Your task to perform on an android device: make emails show in primary in the gmail app Image 0: 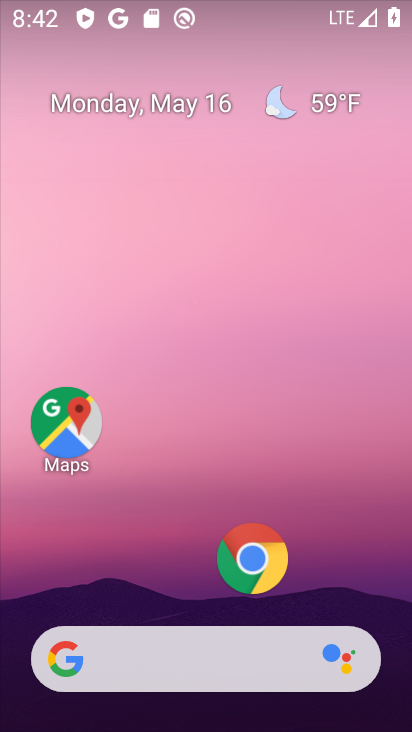
Step 0: drag from (203, 532) to (246, 77)
Your task to perform on an android device: make emails show in primary in the gmail app Image 1: 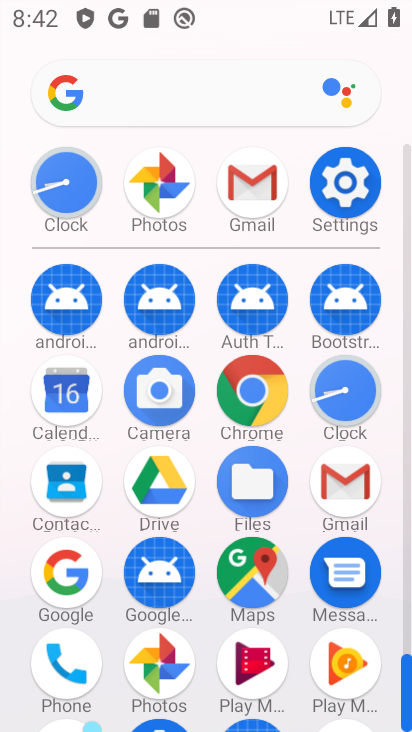
Step 1: click (248, 199)
Your task to perform on an android device: make emails show in primary in the gmail app Image 2: 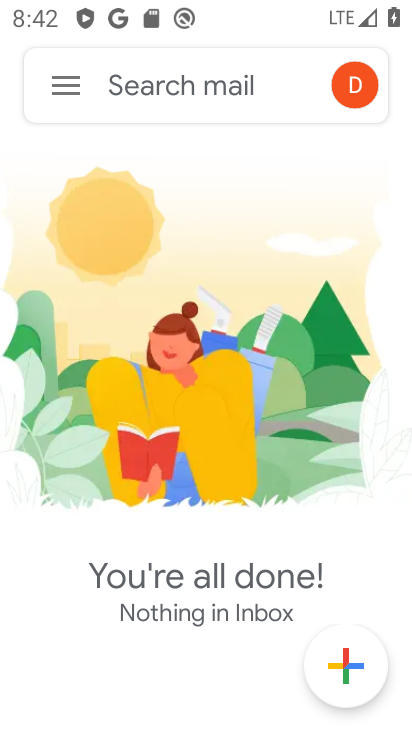
Step 2: click (64, 82)
Your task to perform on an android device: make emails show in primary in the gmail app Image 3: 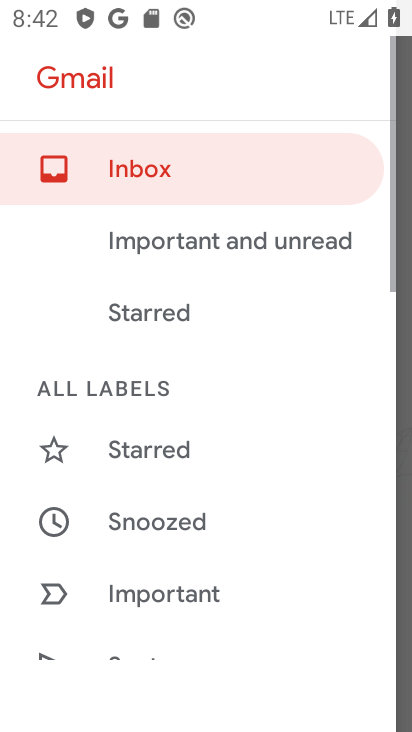
Step 3: drag from (207, 597) to (298, 27)
Your task to perform on an android device: make emails show in primary in the gmail app Image 4: 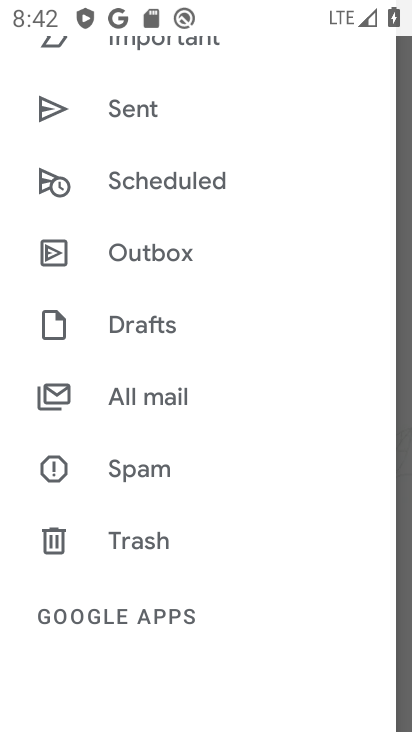
Step 4: drag from (190, 493) to (283, 23)
Your task to perform on an android device: make emails show in primary in the gmail app Image 5: 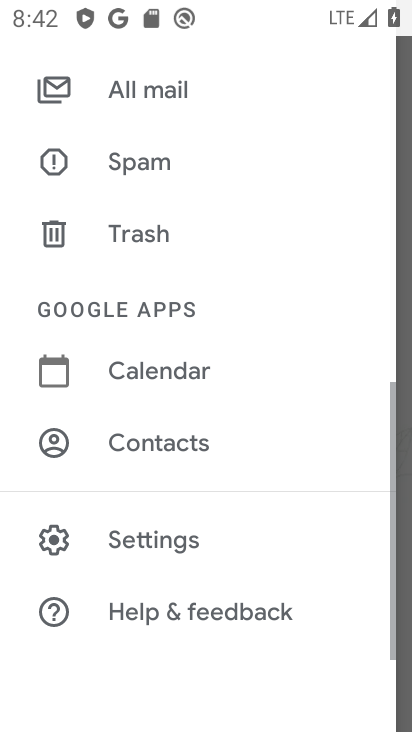
Step 5: click (133, 543)
Your task to perform on an android device: make emails show in primary in the gmail app Image 6: 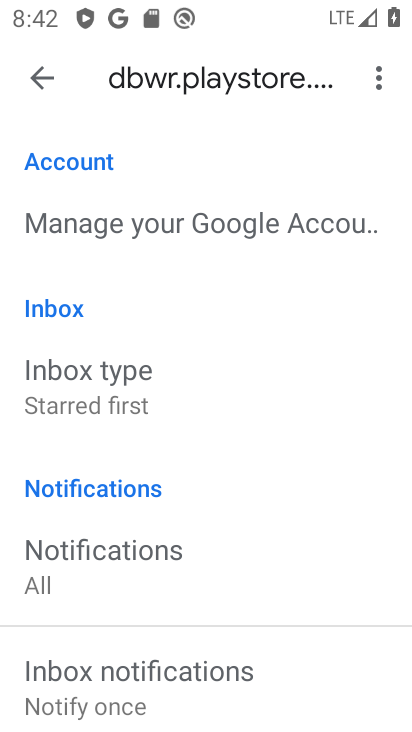
Step 6: task complete